Your task to perform on an android device: What's on my calendar today? Image 0: 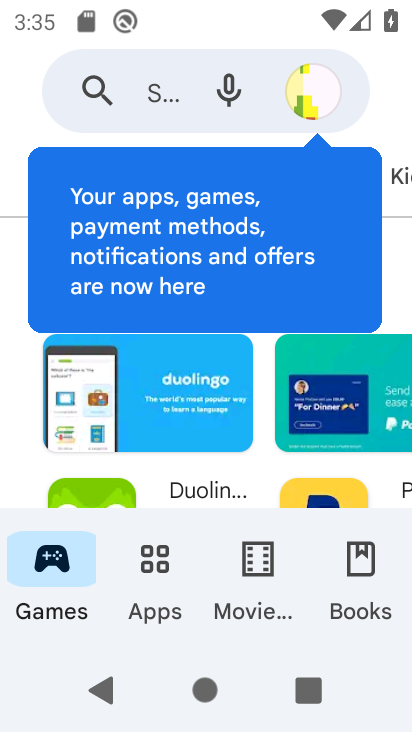
Step 0: press home button
Your task to perform on an android device: What's on my calendar today? Image 1: 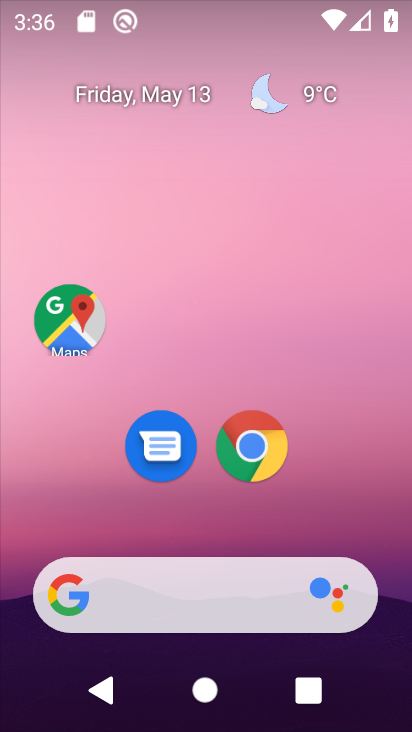
Step 1: drag from (355, 518) to (322, 16)
Your task to perform on an android device: What's on my calendar today? Image 2: 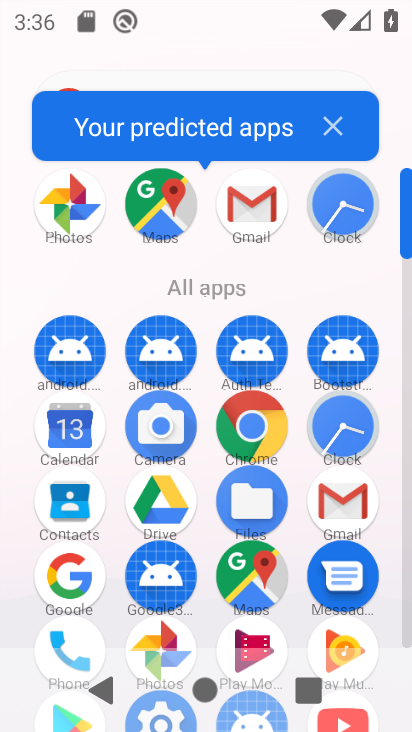
Step 2: click (52, 446)
Your task to perform on an android device: What's on my calendar today? Image 3: 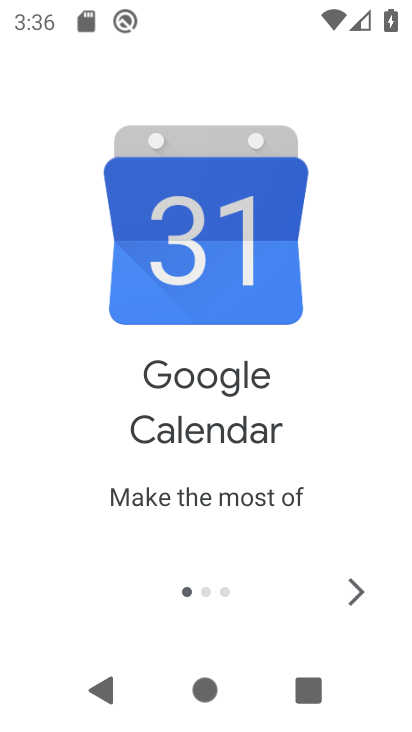
Step 3: click (353, 594)
Your task to perform on an android device: What's on my calendar today? Image 4: 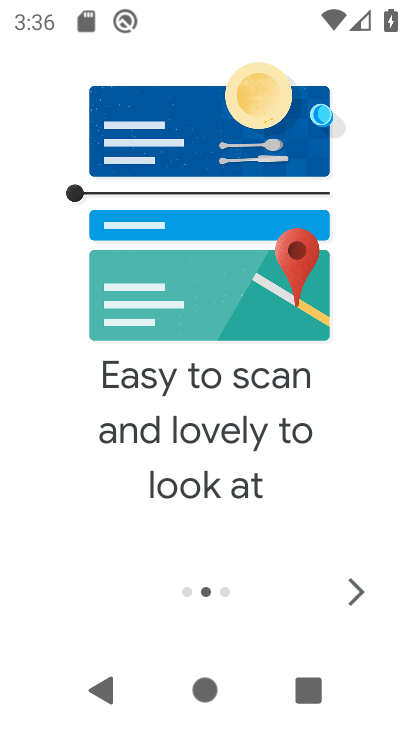
Step 4: click (353, 594)
Your task to perform on an android device: What's on my calendar today? Image 5: 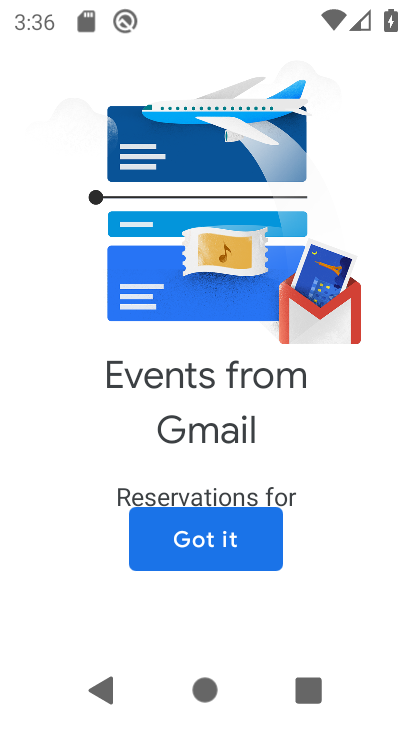
Step 5: click (266, 539)
Your task to perform on an android device: What's on my calendar today? Image 6: 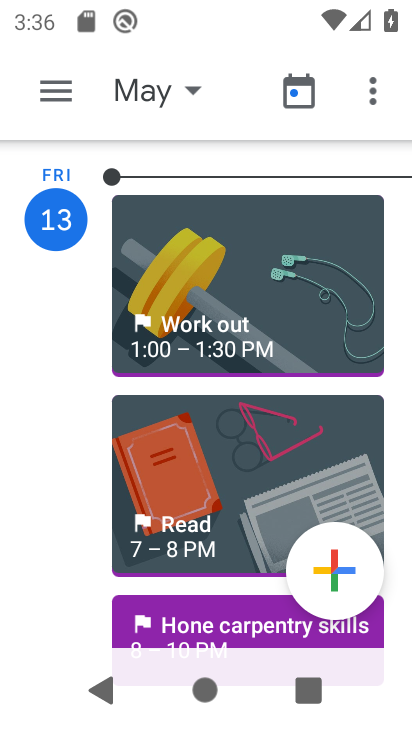
Step 6: click (127, 94)
Your task to perform on an android device: What's on my calendar today? Image 7: 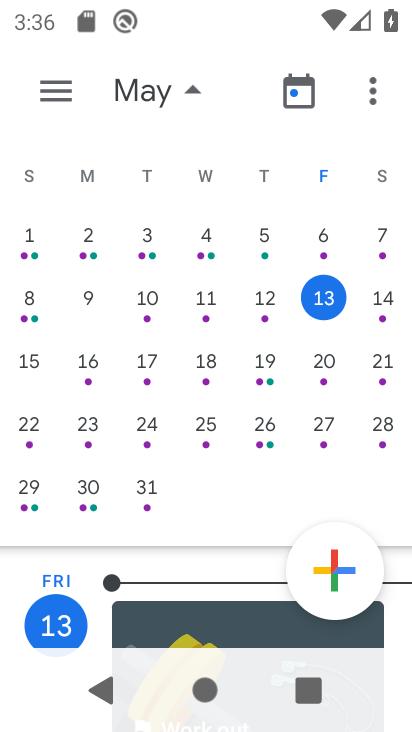
Step 7: click (309, 302)
Your task to perform on an android device: What's on my calendar today? Image 8: 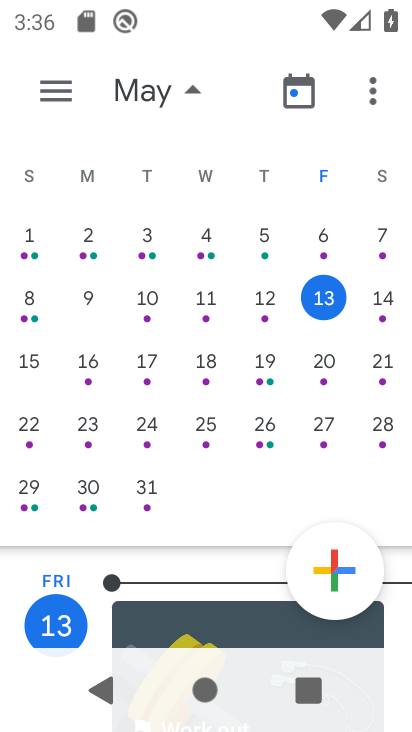
Step 8: task complete